Your task to perform on an android device: Open my contact list Image 0: 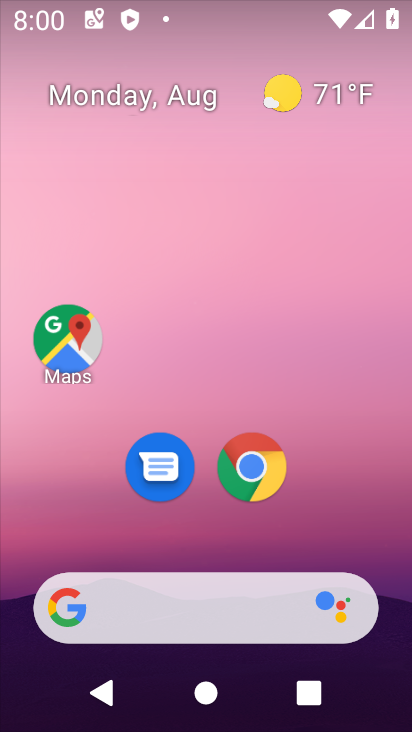
Step 0: press home button
Your task to perform on an android device: Open my contact list Image 1: 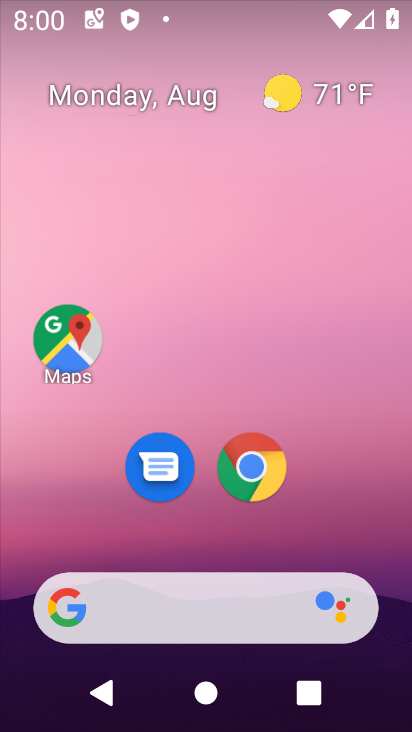
Step 1: drag from (377, 497) to (391, 159)
Your task to perform on an android device: Open my contact list Image 2: 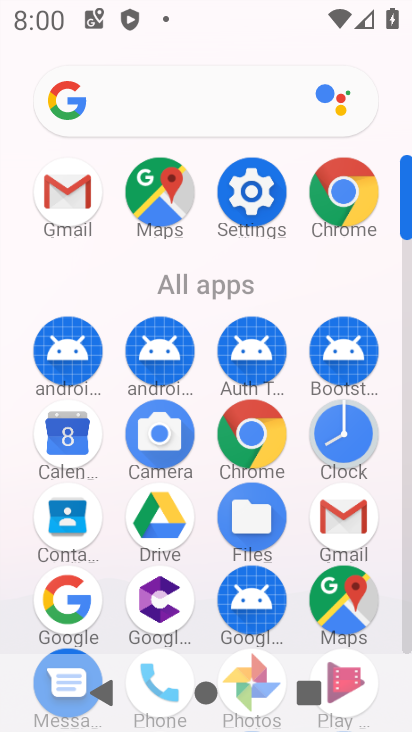
Step 2: click (70, 517)
Your task to perform on an android device: Open my contact list Image 3: 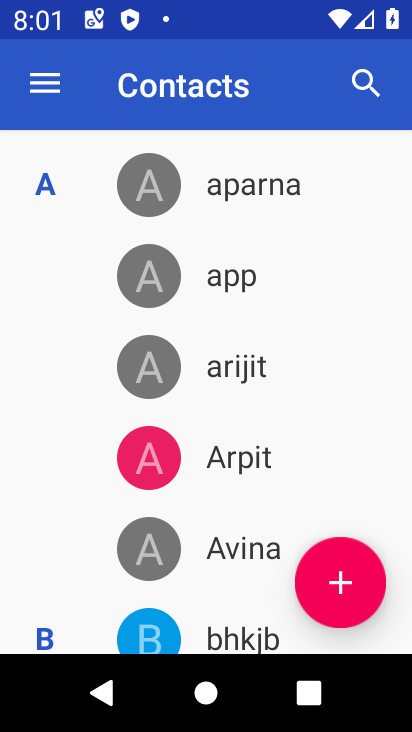
Step 3: task complete